Your task to perform on an android device: search for starred emails in the gmail app Image 0: 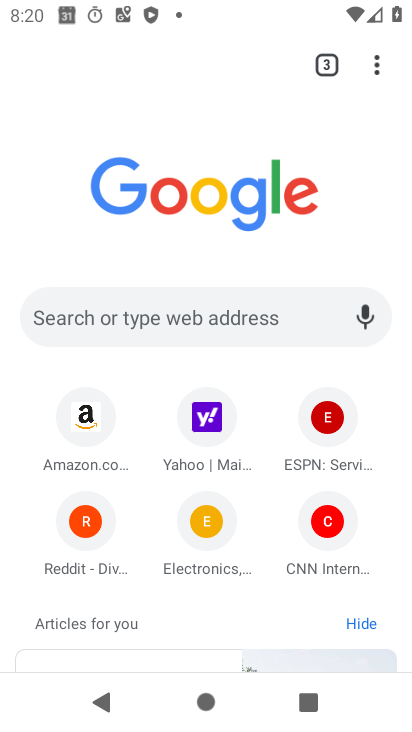
Step 0: press home button
Your task to perform on an android device: search for starred emails in the gmail app Image 1: 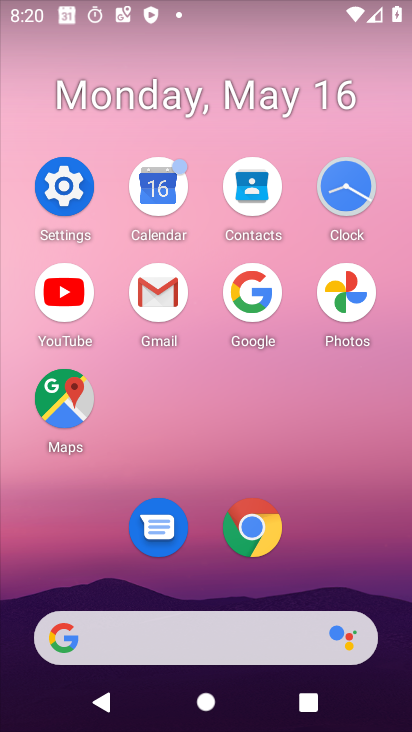
Step 1: click (160, 297)
Your task to perform on an android device: search for starred emails in the gmail app Image 2: 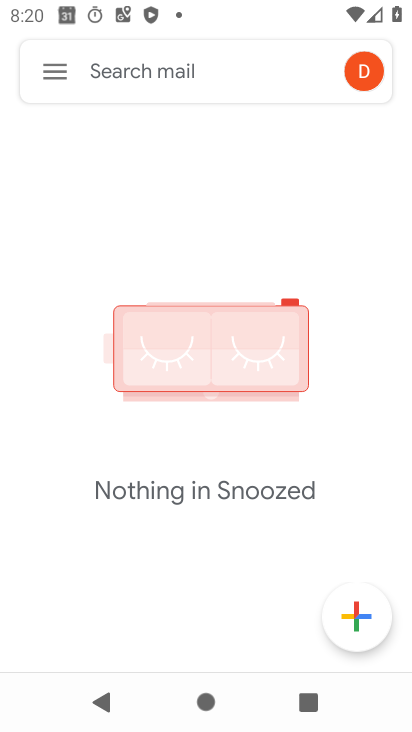
Step 2: click (40, 71)
Your task to perform on an android device: search for starred emails in the gmail app Image 3: 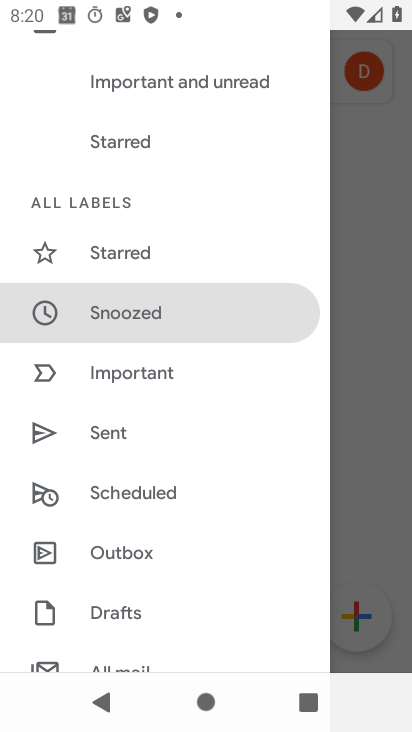
Step 3: click (181, 242)
Your task to perform on an android device: search for starred emails in the gmail app Image 4: 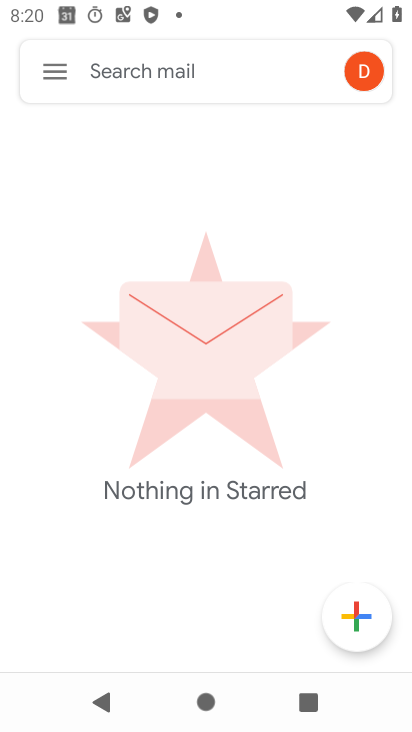
Step 4: task complete